Your task to perform on an android device: Open settings Image 0: 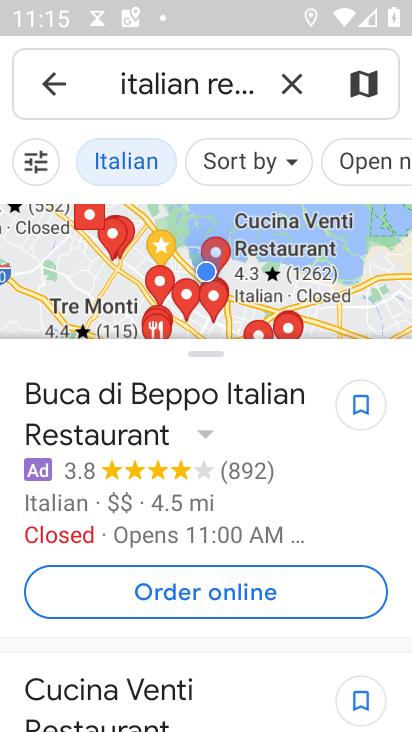
Step 0: press home button
Your task to perform on an android device: Open settings Image 1: 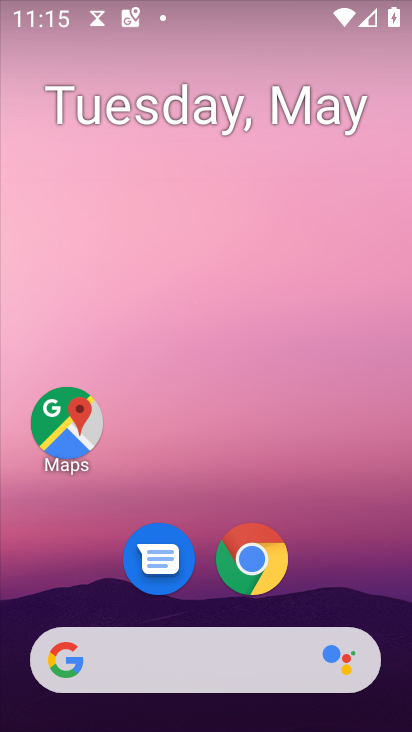
Step 1: drag from (325, 547) to (334, 20)
Your task to perform on an android device: Open settings Image 2: 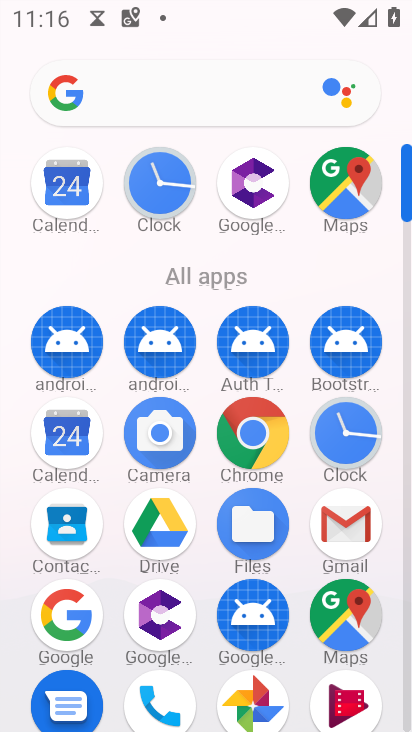
Step 2: drag from (390, 560) to (385, 108)
Your task to perform on an android device: Open settings Image 3: 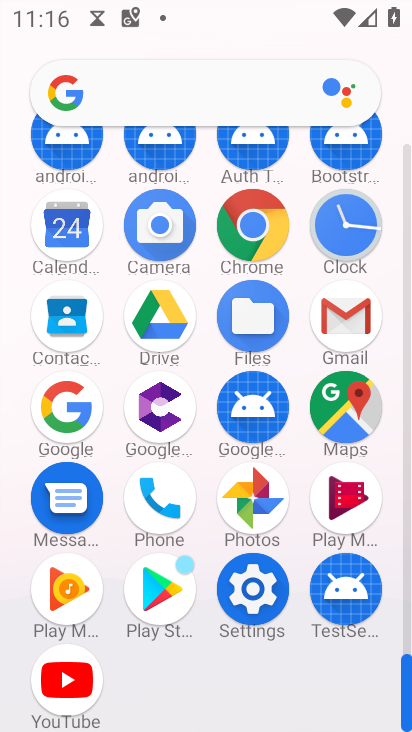
Step 3: click (241, 587)
Your task to perform on an android device: Open settings Image 4: 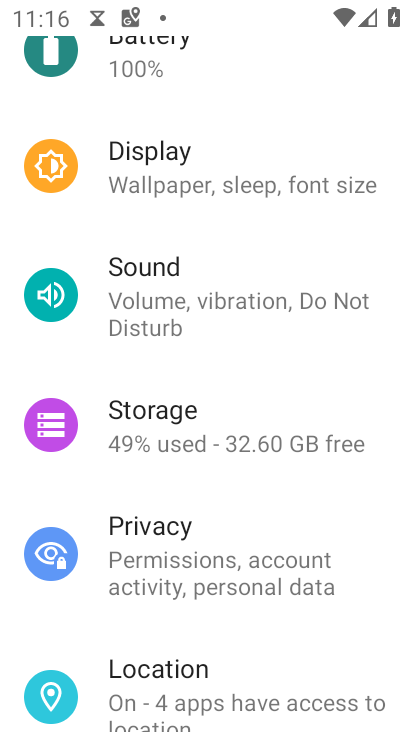
Step 4: task complete